Your task to perform on an android device: Go to Reddit.com Image 0: 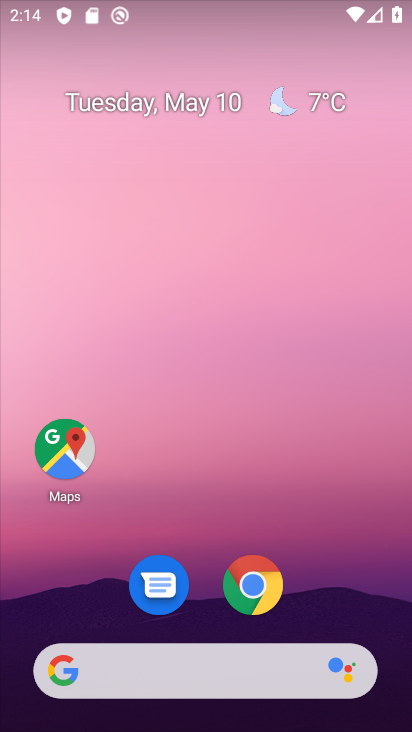
Step 0: click (252, 672)
Your task to perform on an android device: Go to Reddit.com Image 1: 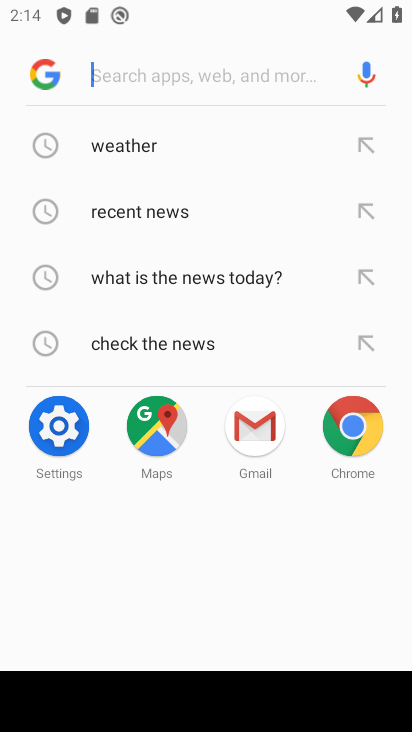
Step 1: type "reddit.com"
Your task to perform on an android device: Go to Reddit.com Image 2: 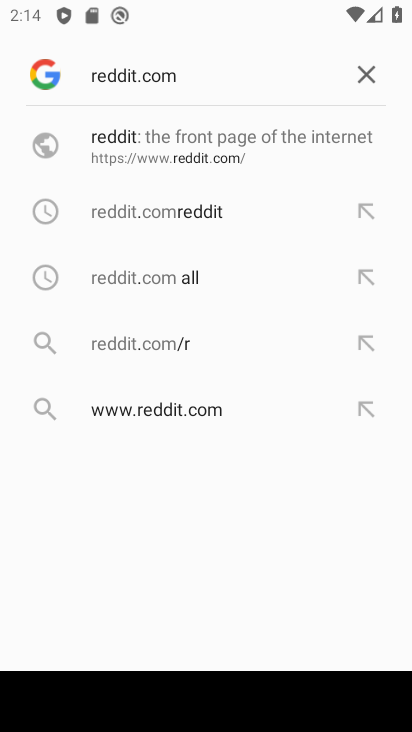
Step 2: click (165, 144)
Your task to perform on an android device: Go to Reddit.com Image 3: 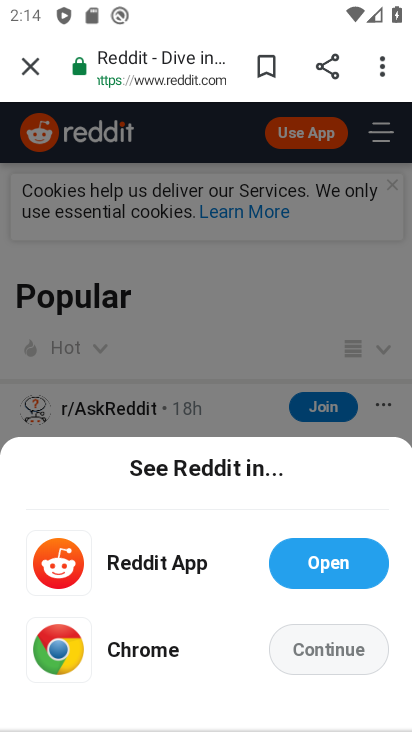
Step 3: task complete